Your task to perform on an android device: Do I have any events this weekend? Image 0: 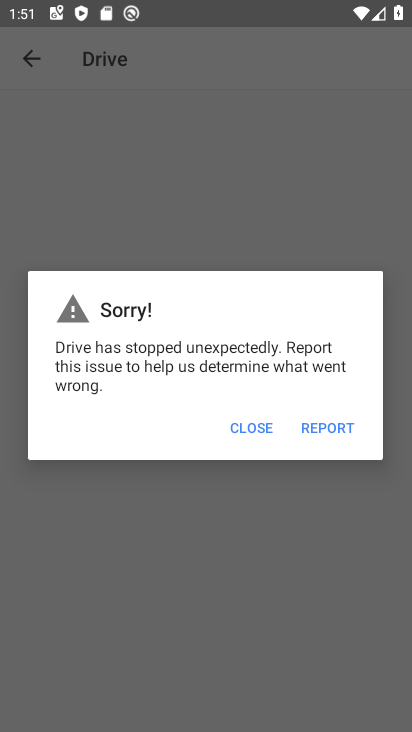
Step 0: press home button
Your task to perform on an android device: Do I have any events this weekend? Image 1: 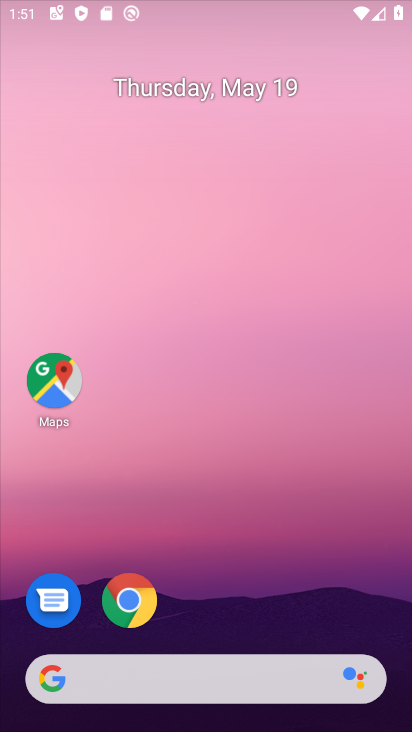
Step 1: drag from (13, 639) to (240, 239)
Your task to perform on an android device: Do I have any events this weekend? Image 2: 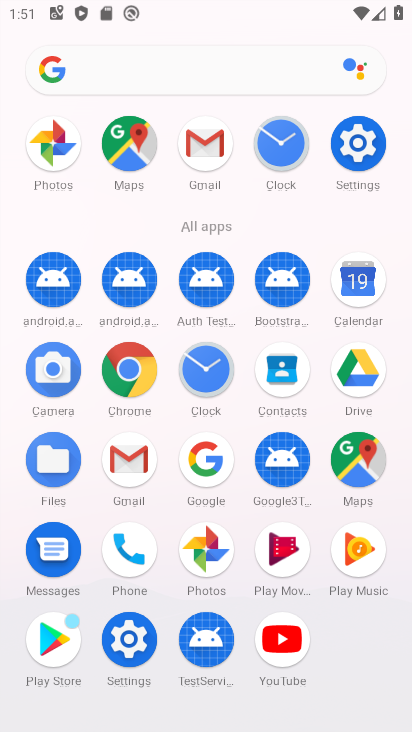
Step 2: click (360, 291)
Your task to perform on an android device: Do I have any events this weekend? Image 3: 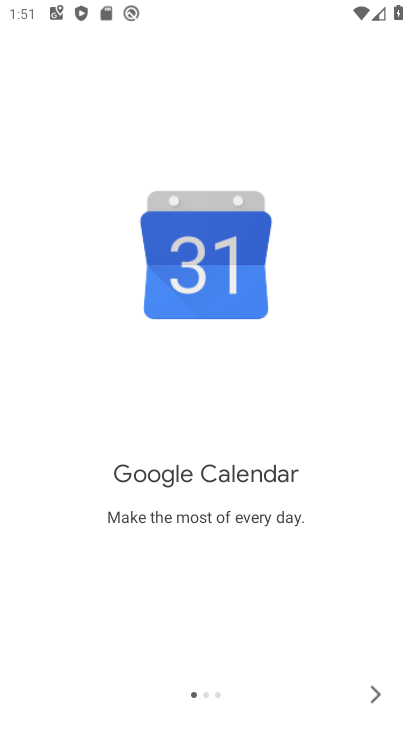
Step 3: click (374, 696)
Your task to perform on an android device: Do I have any events this weekend? Image 4: 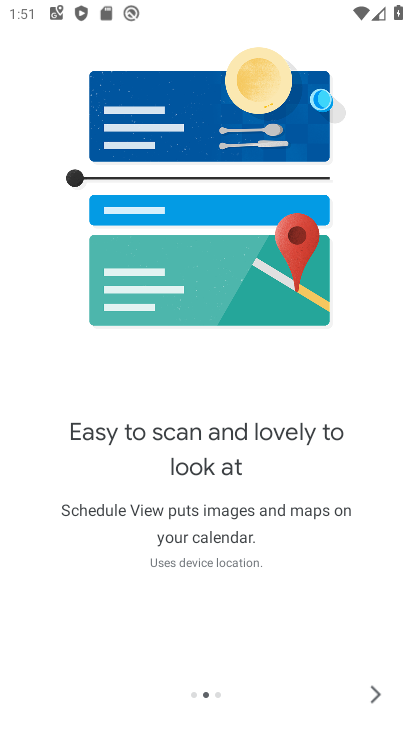
Step 4: click (373, 694)
Your task to perform on an android device: Do I have any events this weekend? Image 5: 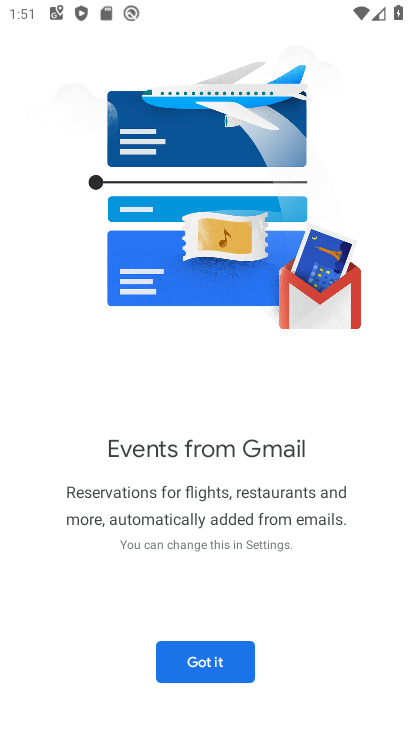
Step 5: click (167, 676)
Your task to perform on an android device: Do I have any events this weekend? Image 6: 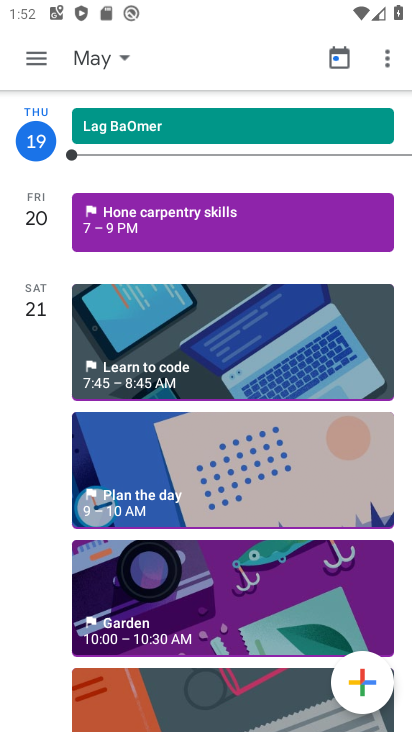
Step 6: click (84, 52)
Your task to perform on an android device: Do I have any events this weekend? Image 7: 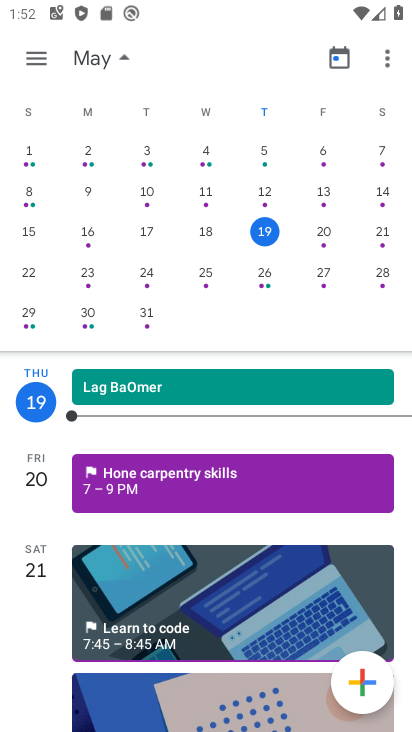
Step 7: click (375, 228)
Your task to perform on an android device: Do I have any events this weekend? Image 8: 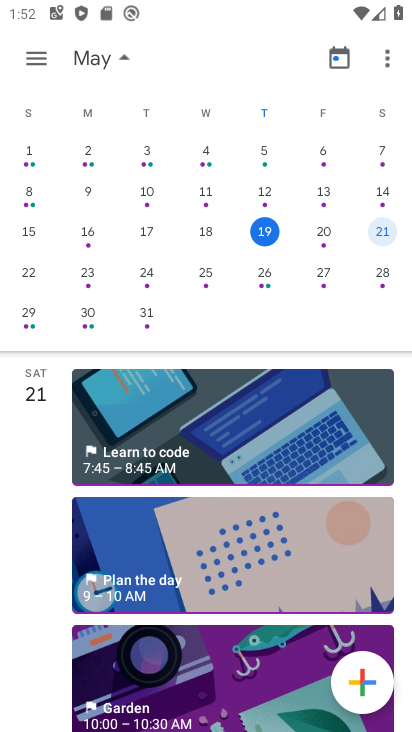
Step 8: task complete